Your task to perform on an android device: Open calendar and show me the second week of next month Image 0: 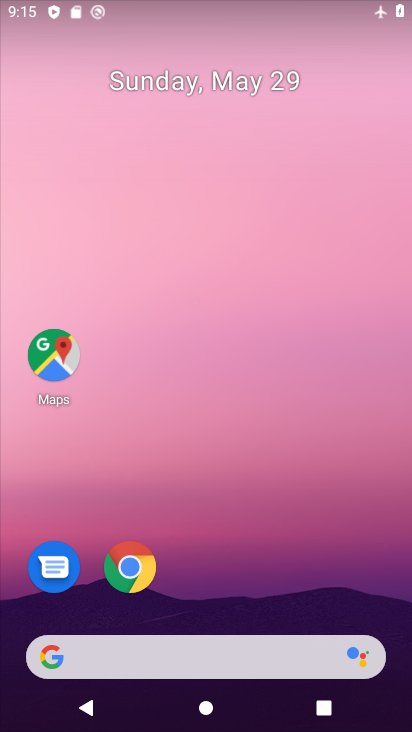
Step 0: drag from (396, 643) to (346, 88)
Your task to perform on an android device: Open calendar and show me the second week of next month Image 1: 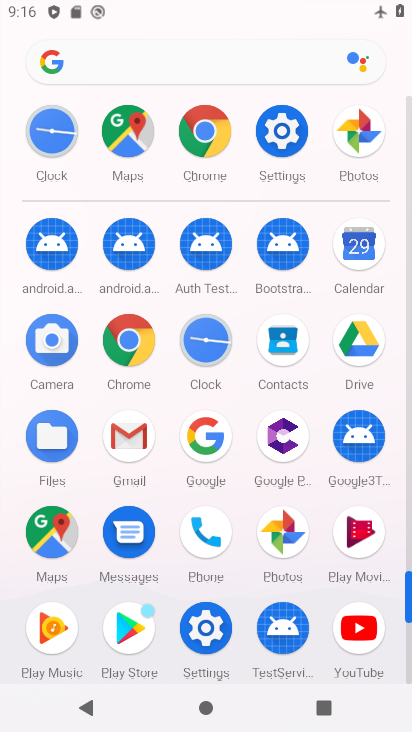
Step 1: click (357, 244)
Your task to perform on an android device: Open calendar and show me the second week of next month Image 2: 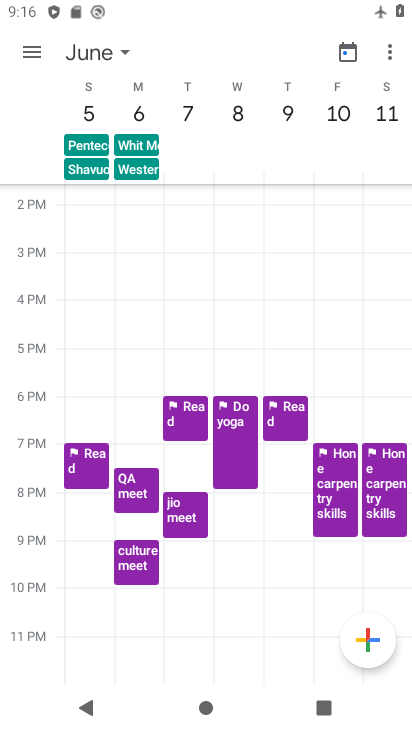
Step 2: click (130, 46)
Your task to perform on an android device: Open calendar and show me the second week of next month Image 3: 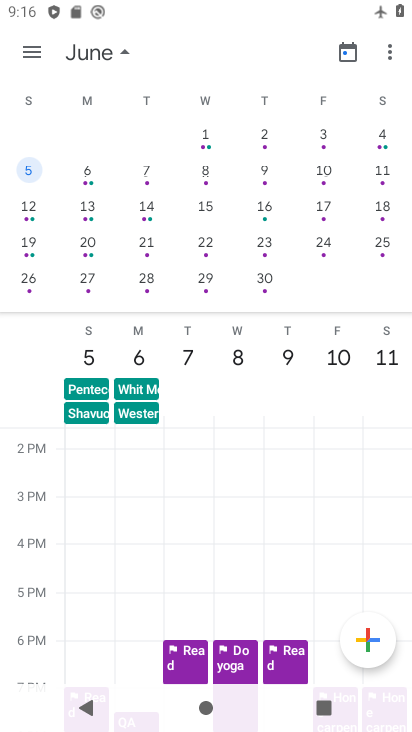
Step 3: click (34, 213)
Your task to perform on an android device: Open calendar and show me the second week of next month Image 4: 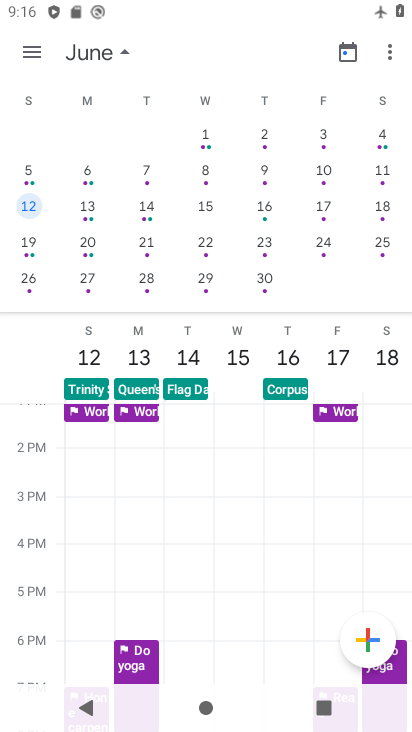
Step 4: task complete